Your task to perform on an android device: Open the stopwatch Image 0: 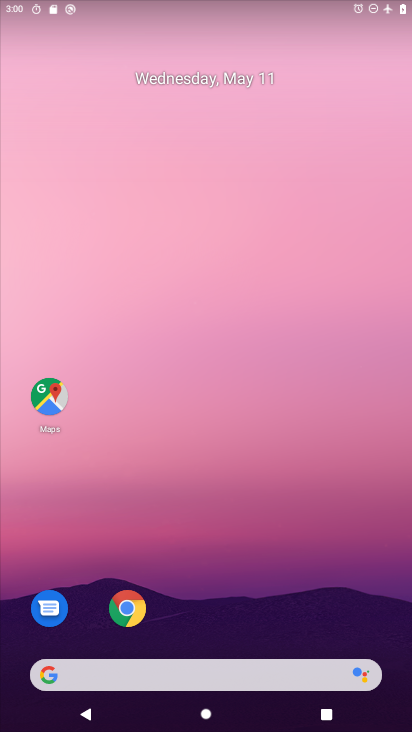
Step 0: drag from (246, 622) to (273, 118)
Your task to perform on an android device: Open the stopwatch Image 1: 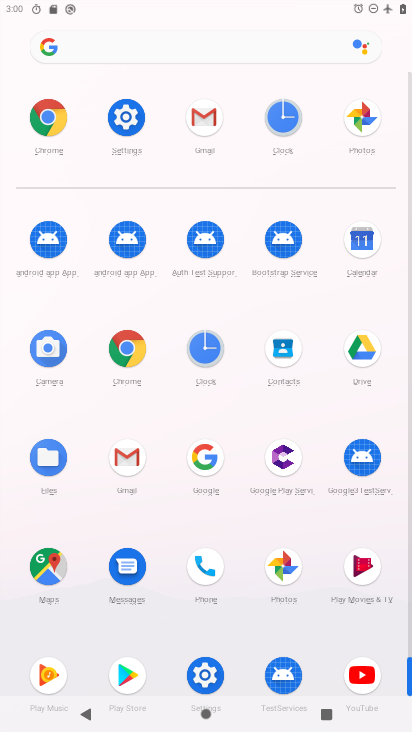
Step 1: click (291, 134)
Your task to perform on an android device: Open the stopwatch Image 2: 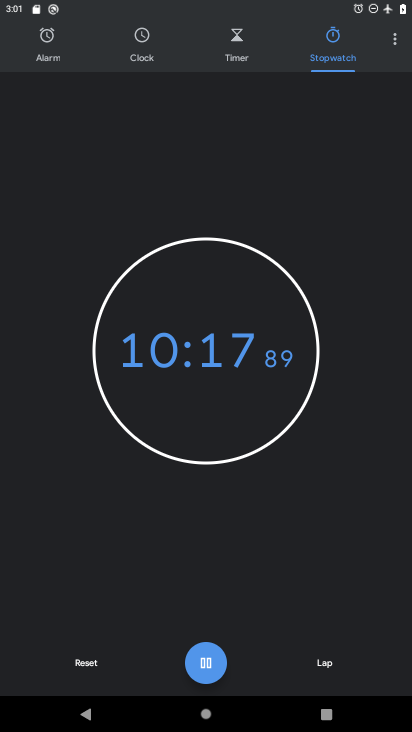
Step 2: task complete